Your task to perform on an android device: set the timer Image 0: 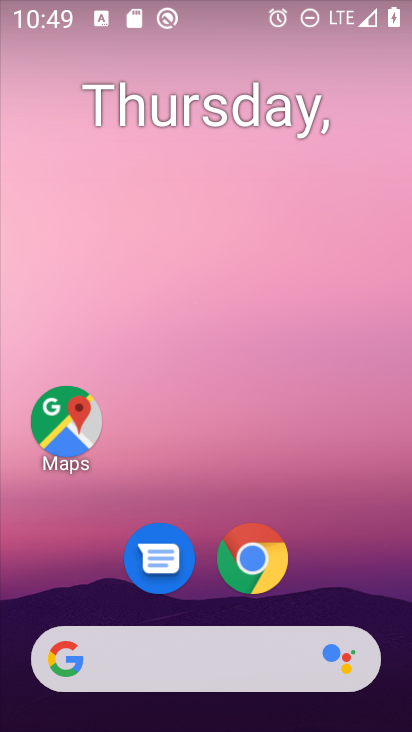
Step 0: drag from (392, 645) to (358, 162)
Your task to perform on an android device: set the timer Image 1: 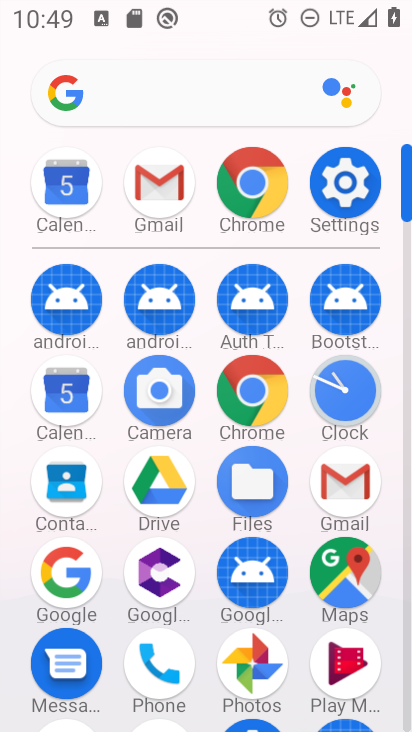
Step 1: click (407, 709)
Your task to perform on an android device: set the timer Image 2: 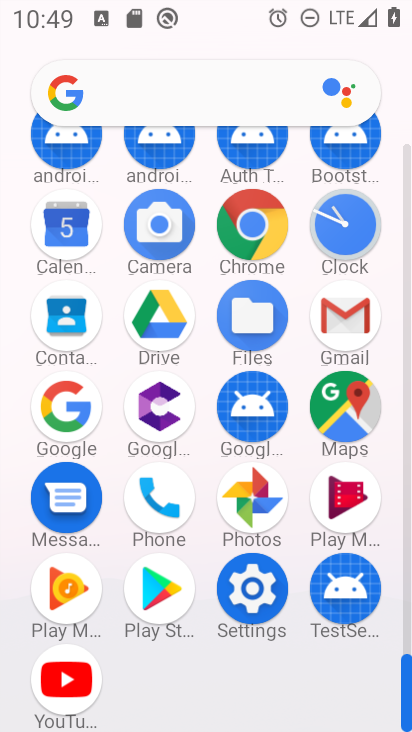
Step 2: click (344, 223)
Your task to perform on an android device: set the timer Image 3: 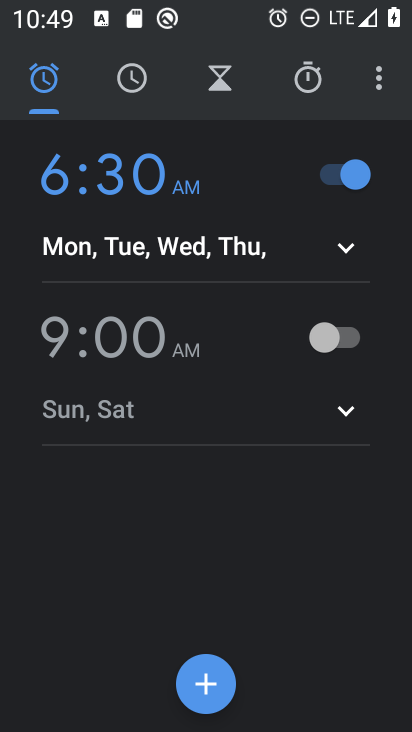
Step 3: click (220, 85)
Your task to perform on an android device: set the timer Image 4: 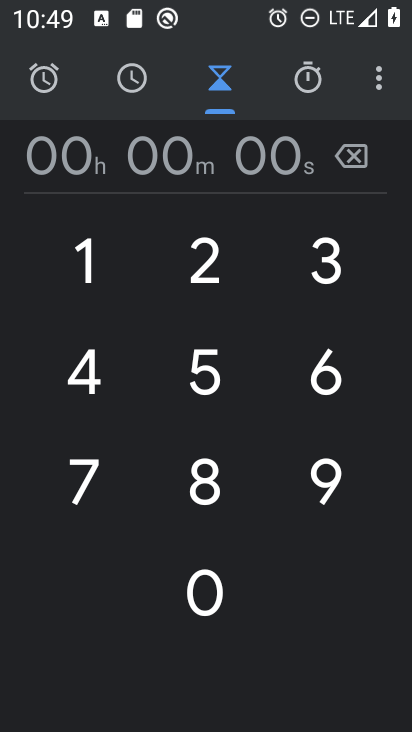
Step 4: click (89, 261)
Your task to perform on an android device: set the timer Image 5: 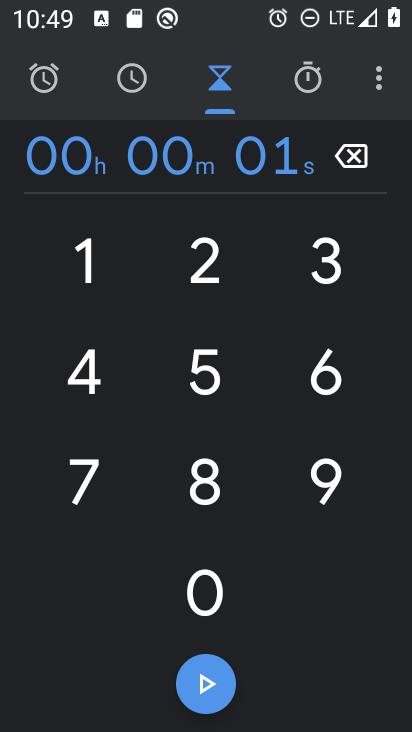
Step 5: click (336, 258)
Your task to perform on an android device: set the timer Image 6: 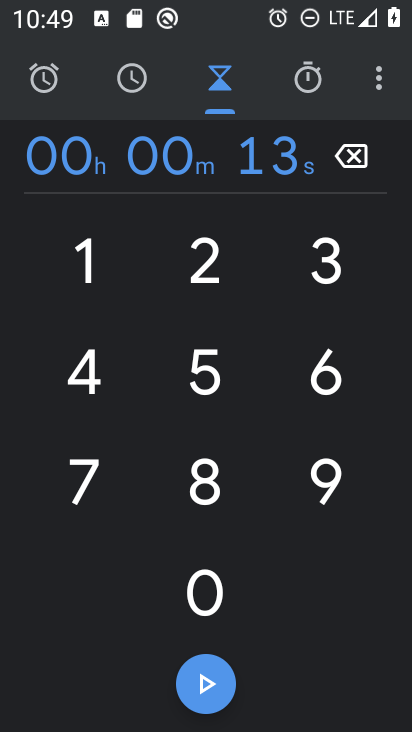
Step 6: click (204, 592)
Your task to perform on an android device: set the timer Image 7: 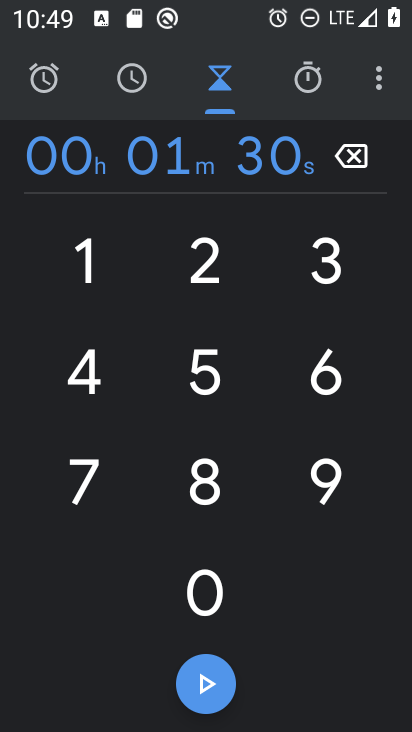
Step 7: click (204, 592)
Your task to perform on an android device: set the timer Image 8: 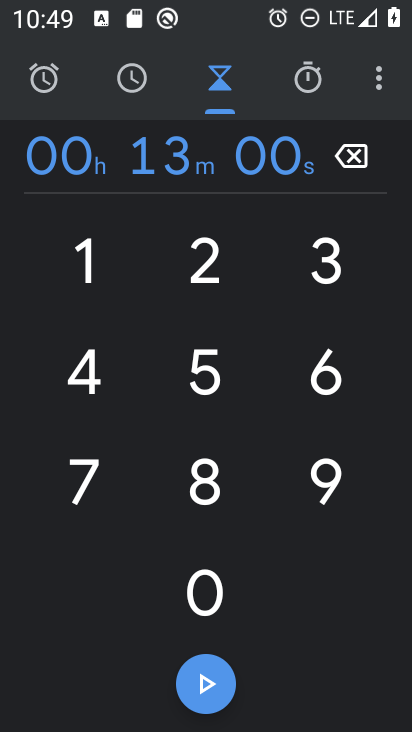
Step 8: click (204, 592)
Your task to perform on an android device: set the timer Image 9: 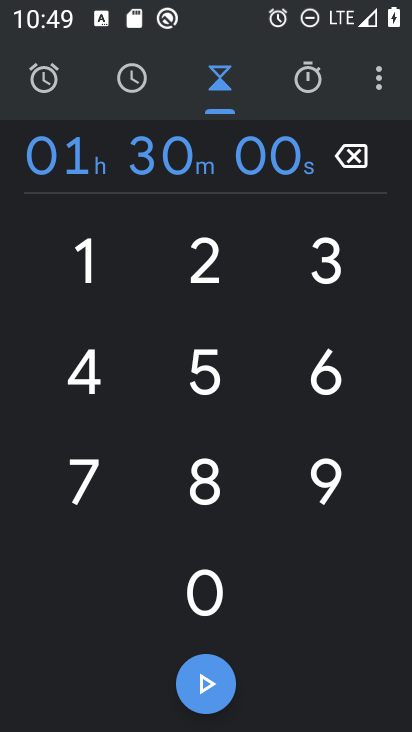
Step 9: task complete